Your task to perform on an android device: turn off picture-in-picture Image 0: 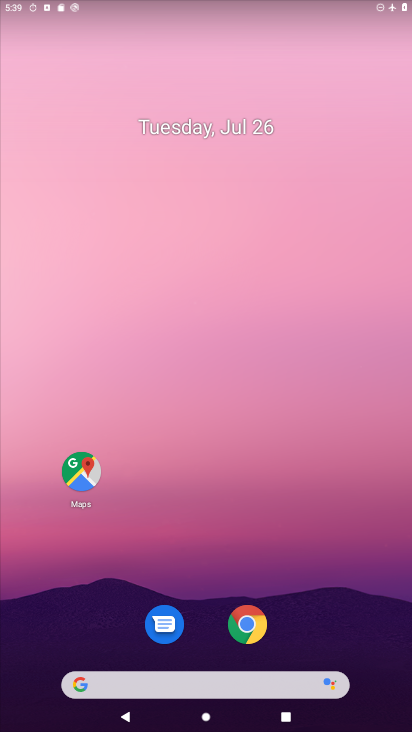
Step 0: drag from (288, 691) to (409, 58)
Your task to perform on an android device: turn off picture-in-picture Image 1: 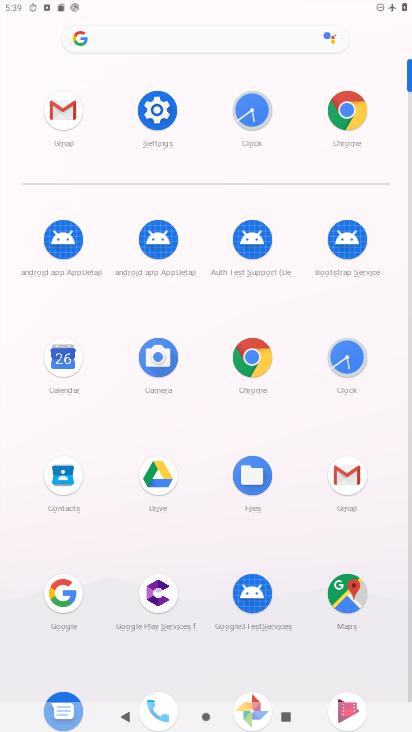
Step 1: click (155, 112)
Your task to perform on an android device: turn off picture-in-picture Image 2: 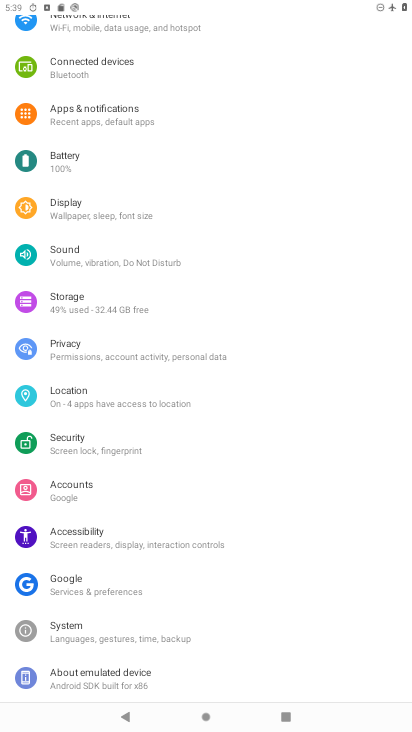
Step 2: click (89, 120)
Your task to perform on an android device: turn off picture-in-picture Image 3: 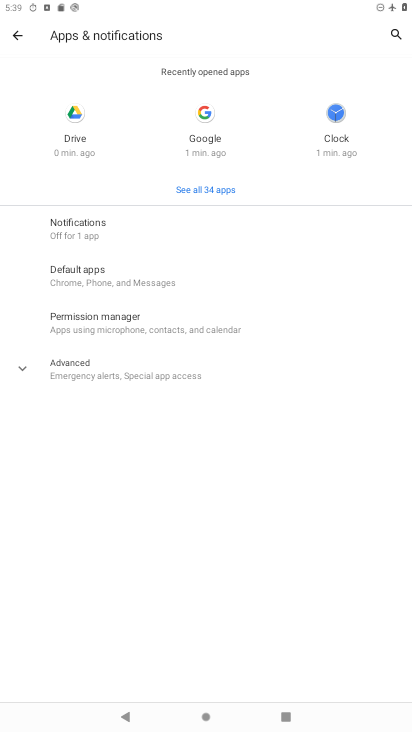
Step 3: click (104, 374)
Your task to perform on an android device: turn off picture-in-picture Image 4: 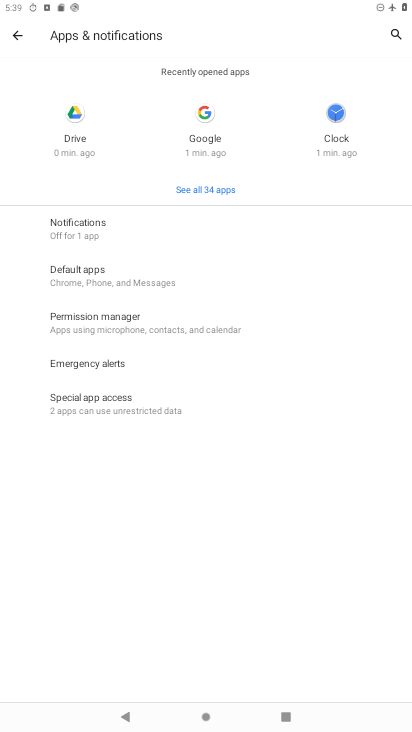
Step 4: click (130, 395)
Your task to perform on an android device: turn off picture-in-picture Image 5: 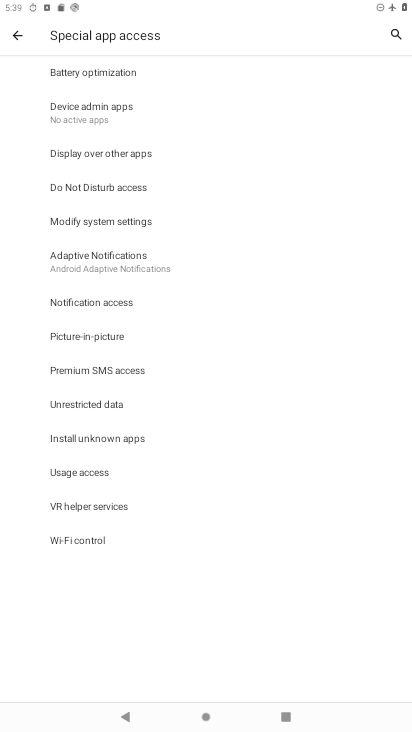
Step 5: click (105, 348)
Your task to perform on an android device: turn off picture-in-picture Image 6: 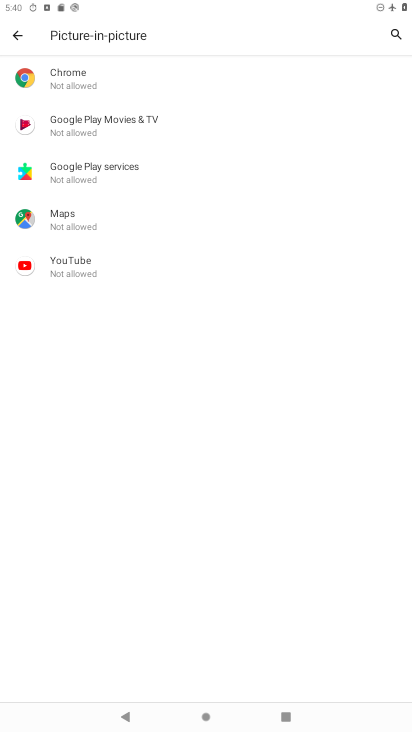
Step 6: task complete